Your task to perform on an android device: Go to location settings Image 0: 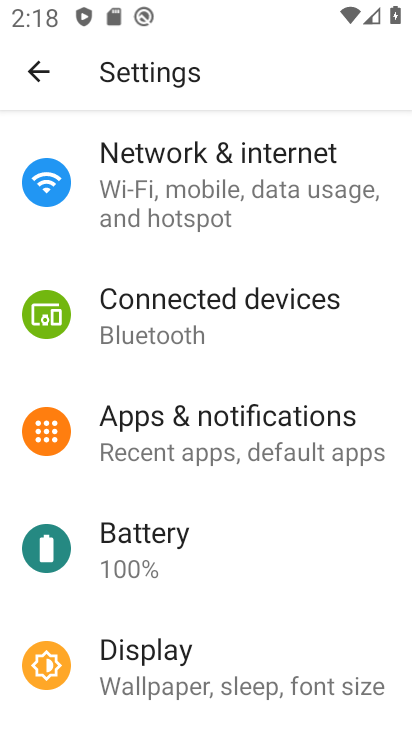
Step 0: drag from (214, 600) to (312, 213)
Your task to perform on an android device: Go to location settings Image 1: 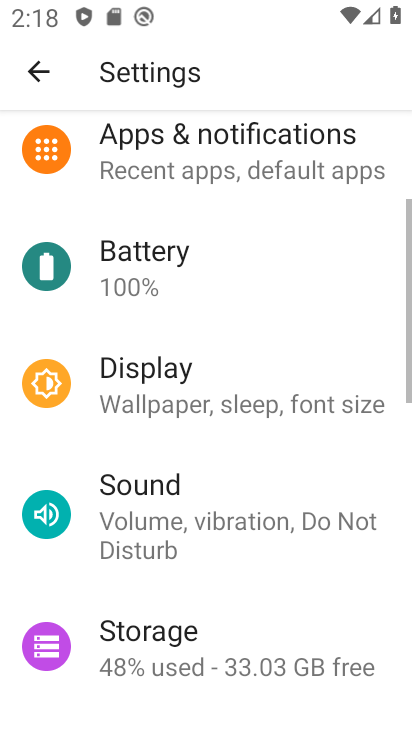
Step 1: drag from (148, 656) to (238, 320)
Your task to perform on an android device: Go to location settings Image 2: 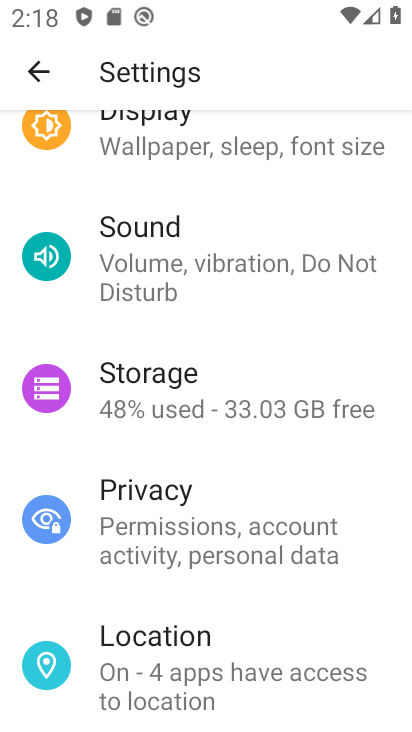
Step 2: click (201, 657)
Your task to perform on an android device: Go to location settings Image 3: 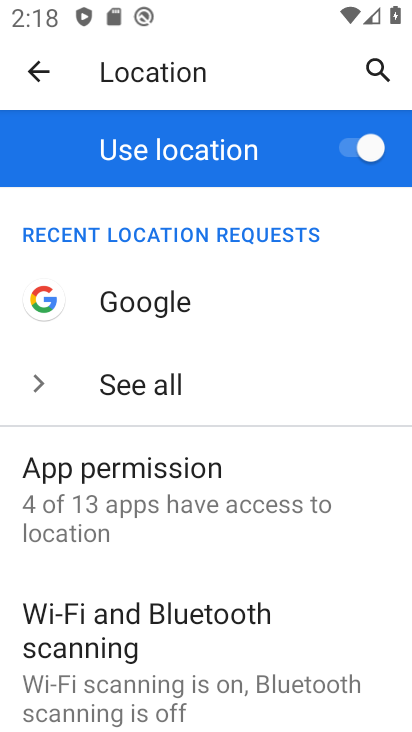
Step 3: task complete